Your task to perform on an android device: open sync settings in chrome Image 0: 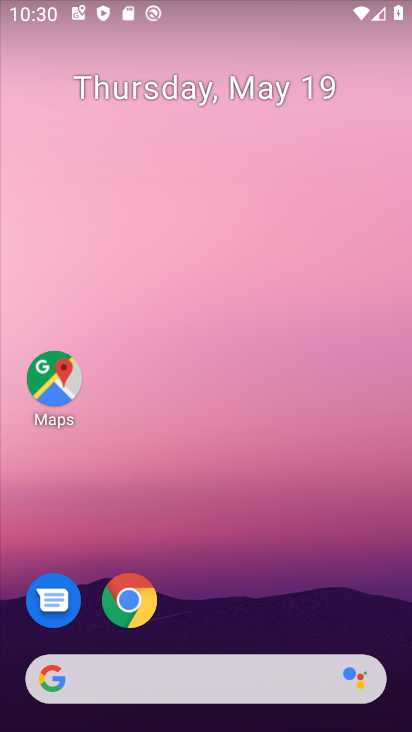
Step 0: press home button
Your task to perform on an android device: open sync settings in chrome Image 1: 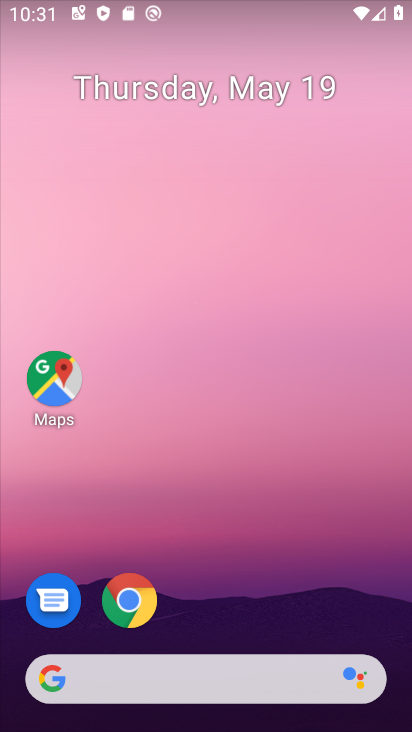
Step 1: click (142, 595)
Your task to perform on an android device: open sync settings in chrome Image 2: 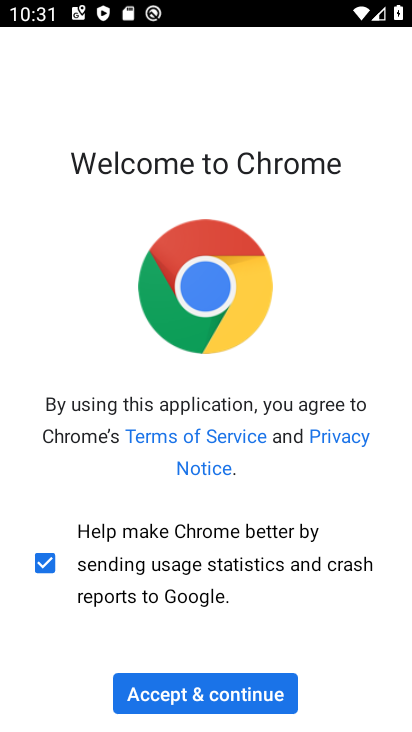
Step 2: click (151, 681)
Your task to perform on an android device: open sync settings in chrome Image 3: 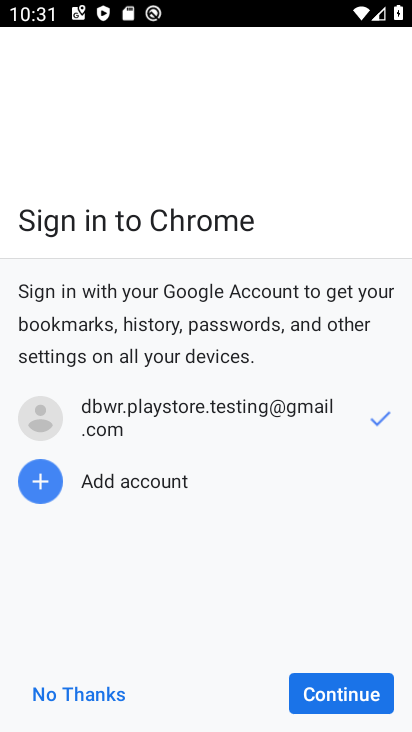
Step 3: click (352, 685)
Your task to perform on an android device: open sync settings in chrome Image 4: 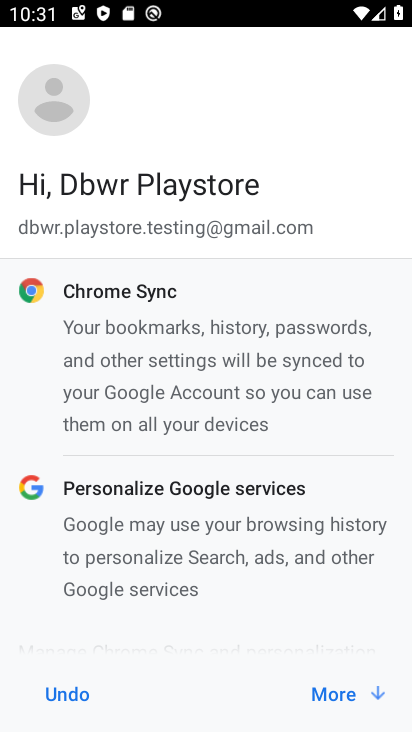
Step 4: click (352, 685)
Your task to perform on an android device: open sync settings in chrome Image 5: 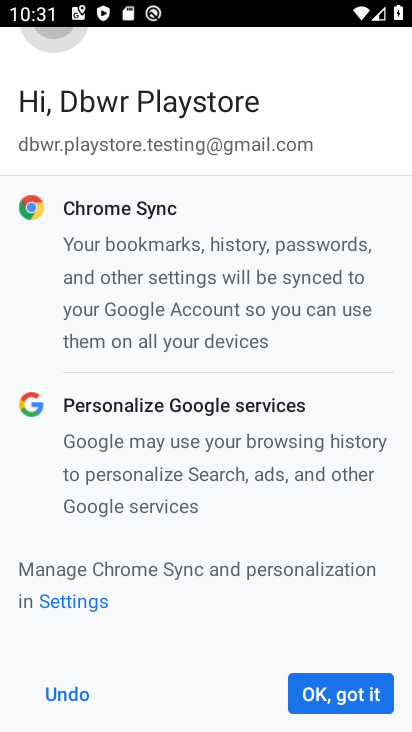
Step 5: click (352, 685)
Your task to perform on an android device: open sync settings in chrome Image 6: 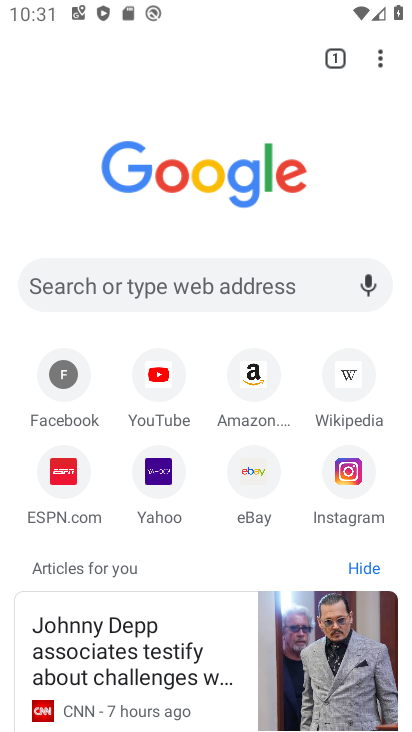
Step 6: click (381, 56)
Your task to perform on an android device: open sync settings in chrome Image 7: 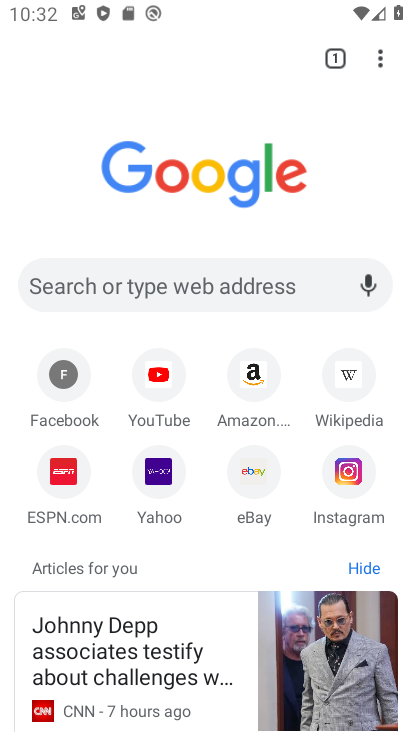
Step 7: drag from (380, 46) to (219, 482)
Your task to perform on an android device: open sync settings in chrome Image 8: 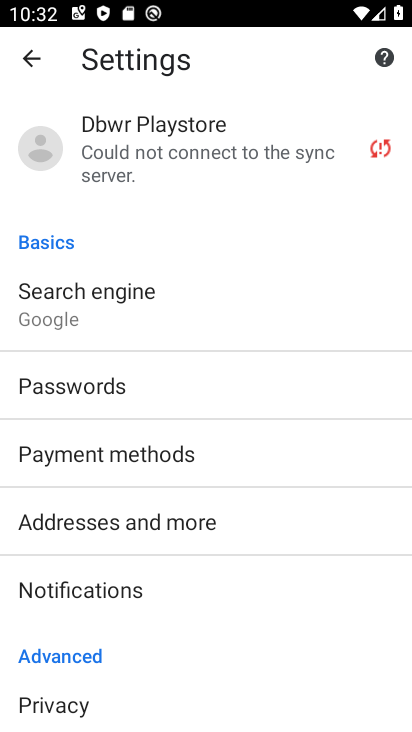
Step 8: click (138, 164)
Your task to perform on an android device: open sync settings in chrome Image 9: 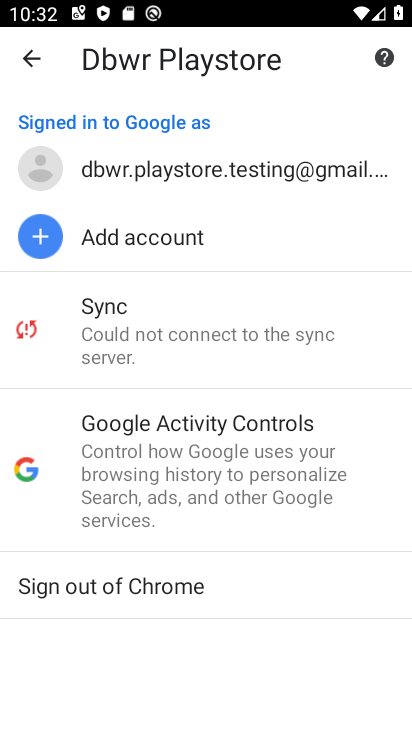
Step 9: click (115, 322)
Your task to perform on an android device: open sync settings in chrome Image 10: 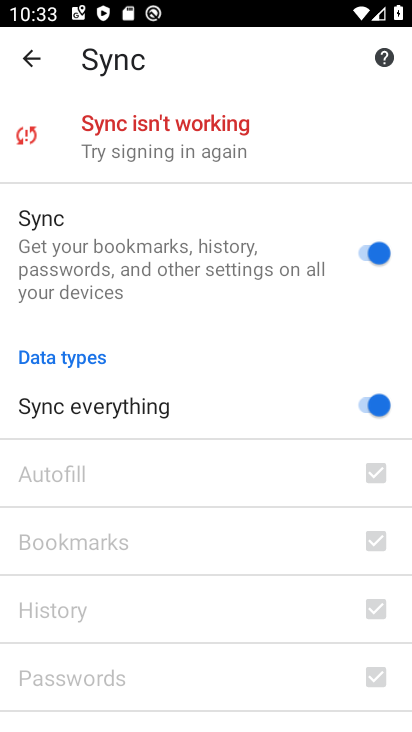
Step 10: task complete